Your task to perform on an android device: turn on showing notifications on the lock screen Image 0: 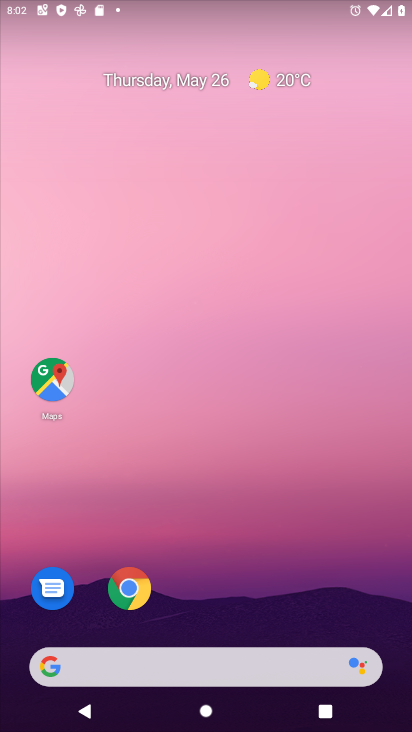
Step 0: drag from (377, 598) to (190, 31)
Your task to perform on an android device: turn on showing notifications on the lock screen Image 1: 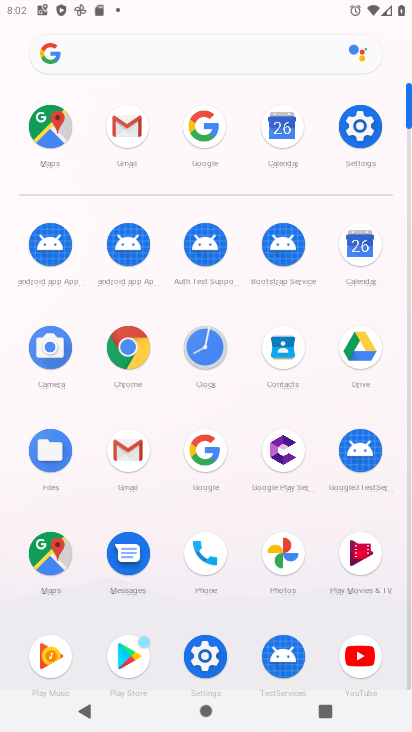
Step 1: click (212, 640)
Your task to perform on an android device: turn on showing notifications on the lock screen Image 2: 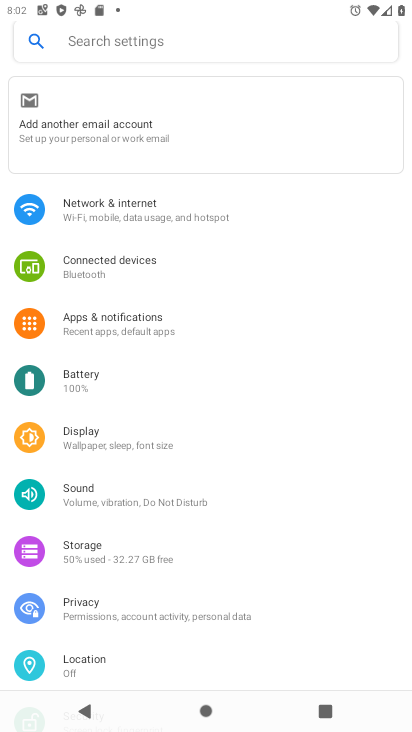
Step 2: click (139, 331)
Your task to perform on an android device: turn on showing notifications on the lock screen Image 3: 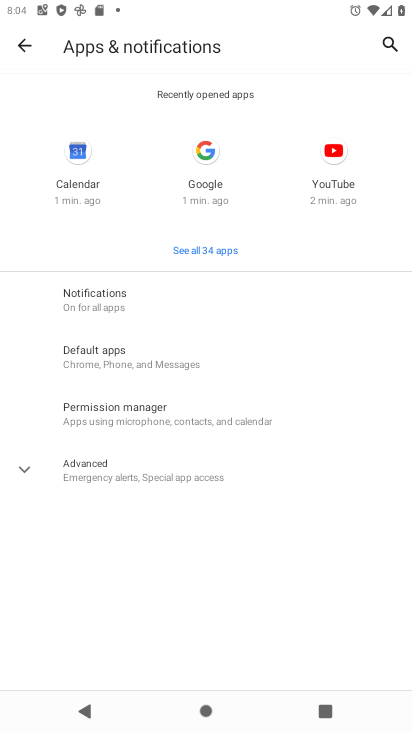
Step 3: click (142, 311)
Your task to perform on an android device: turn on showing notifications on the lock screen Image 4: 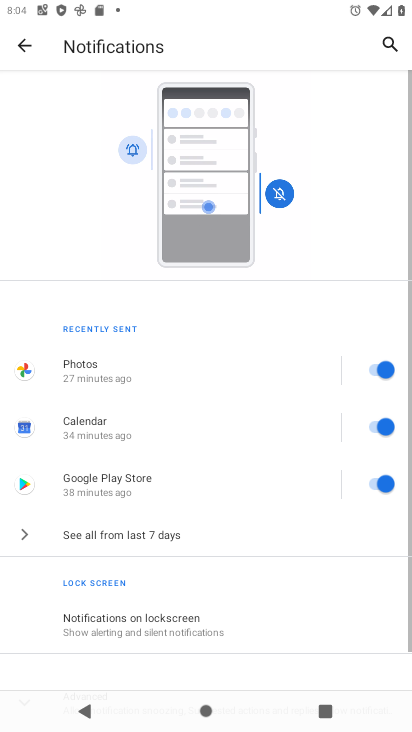
Step 4: click (169, 614)
Your task to perform on an android device: turn on showing notifications on the lock screen Image 5: 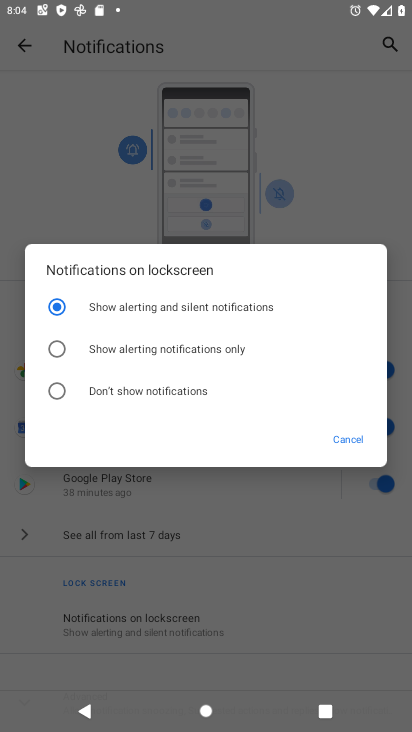
Step 5: task complete